Your task to perform on an android device: Open Chrome and go to the settings page Image 0: 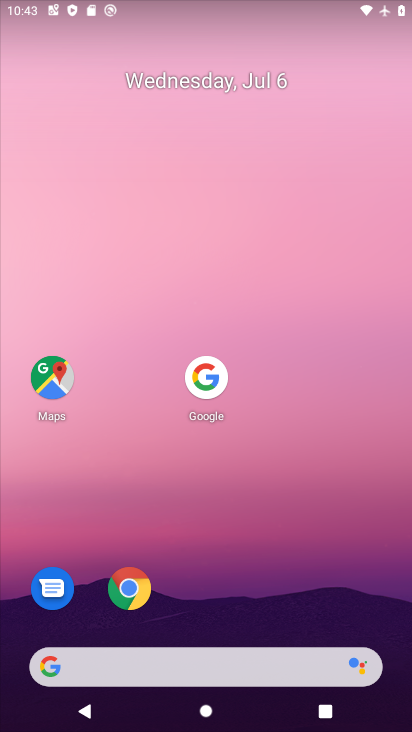
Step 0: click (129, 586)
Your task to perform on an android device: Open Chrome and go to the settings page Image 1: 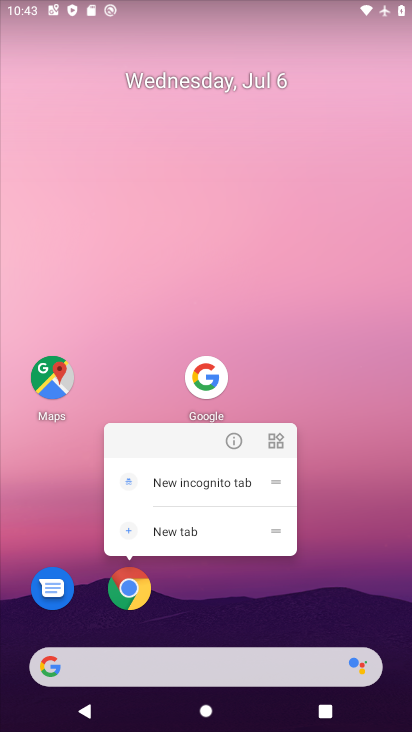
Step 1: click (129, 594)
Your task to perform on an android device: Open Chrome and go to the settings page Image 2: 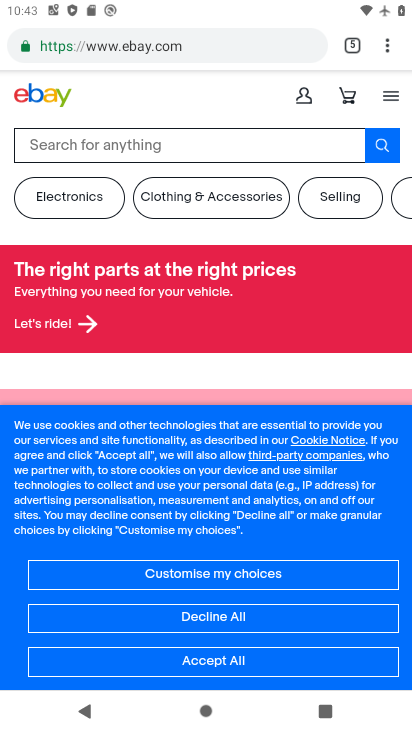
Step 2: click (387, 55)
Your task to perform on an android device: Open Chrome and go to the settings page Image 3: 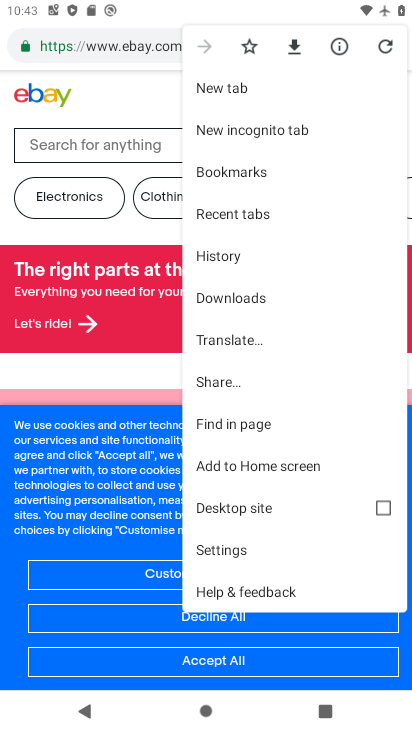
Step 3: click (241, 547)
Your task to perform on an android device: Open Chrome and go to the settings page Image 4: 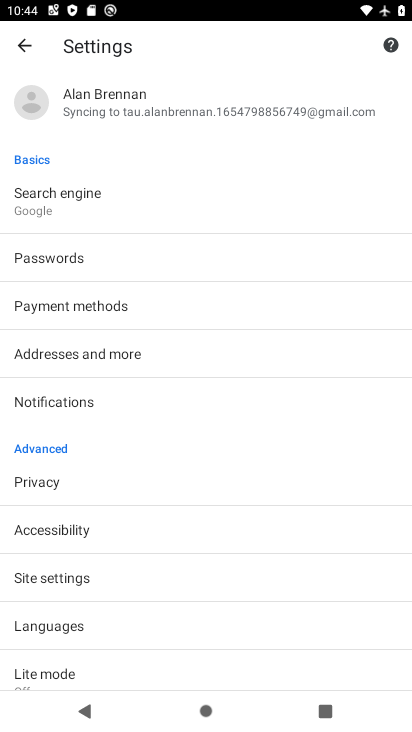
Step 4: task complete